Your task to perform on an android device: turn on wifi Image 0: 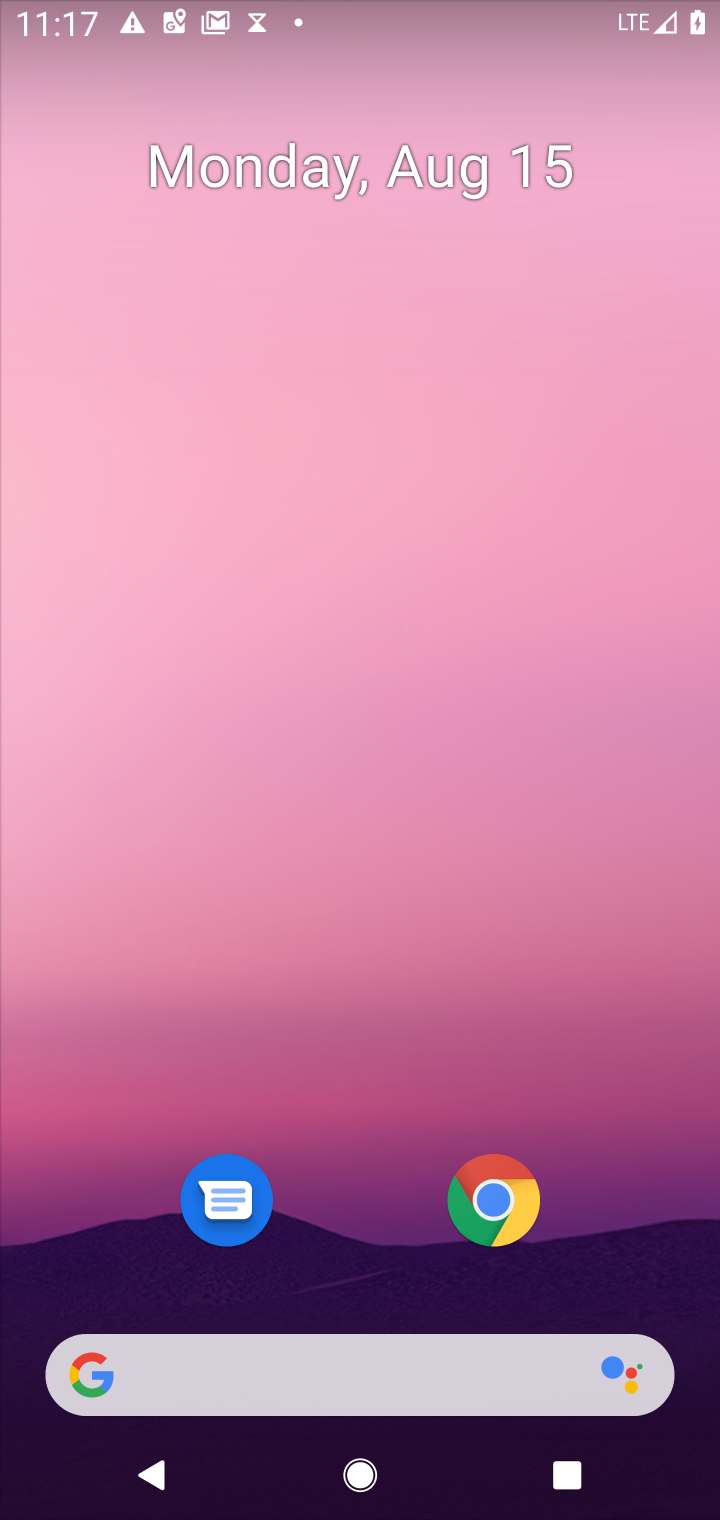
Step 0: drag from (383, 1107) to (389, 286)
Your task to perform on an android device: turn on wifi Image 1: 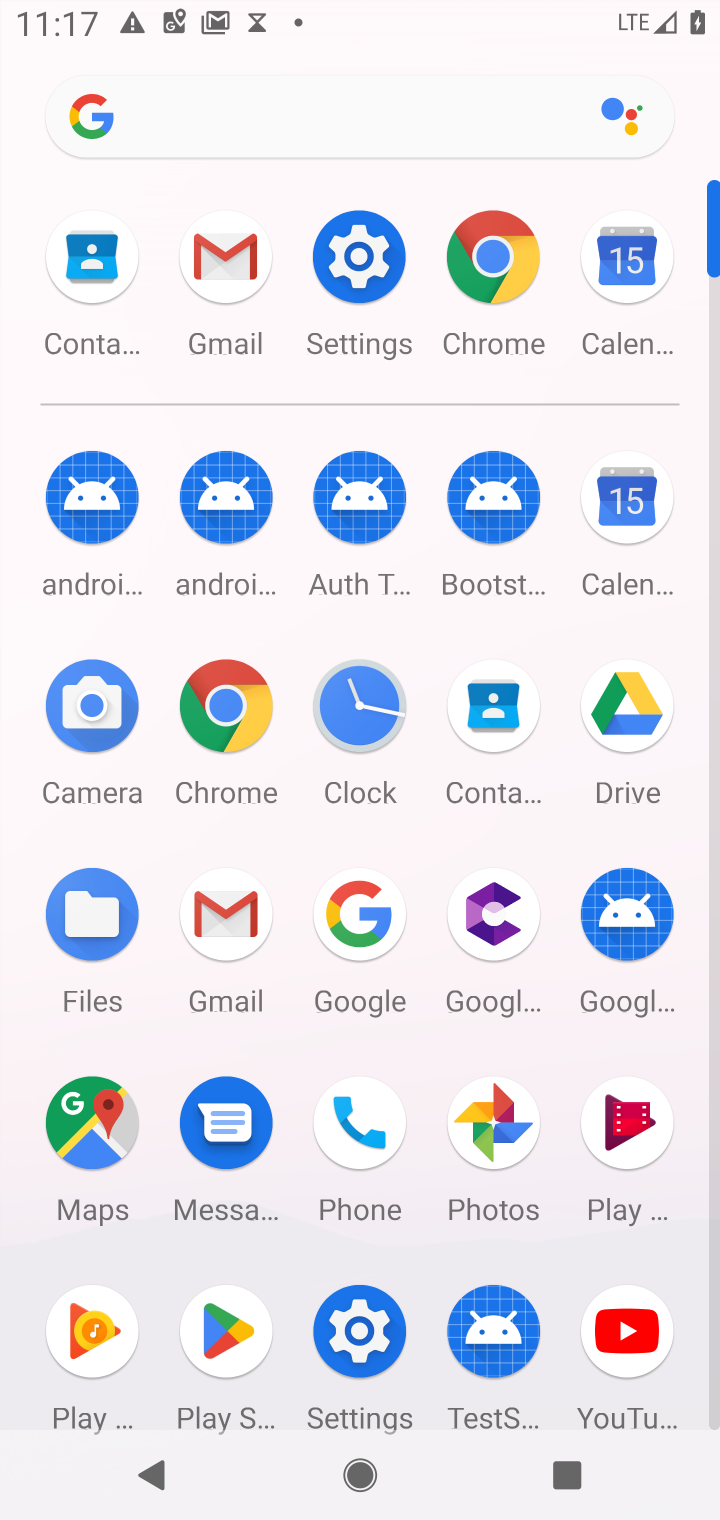
Step 1: click (346, 214)
Your task to perform on an android device: turn on wifi Image 2: 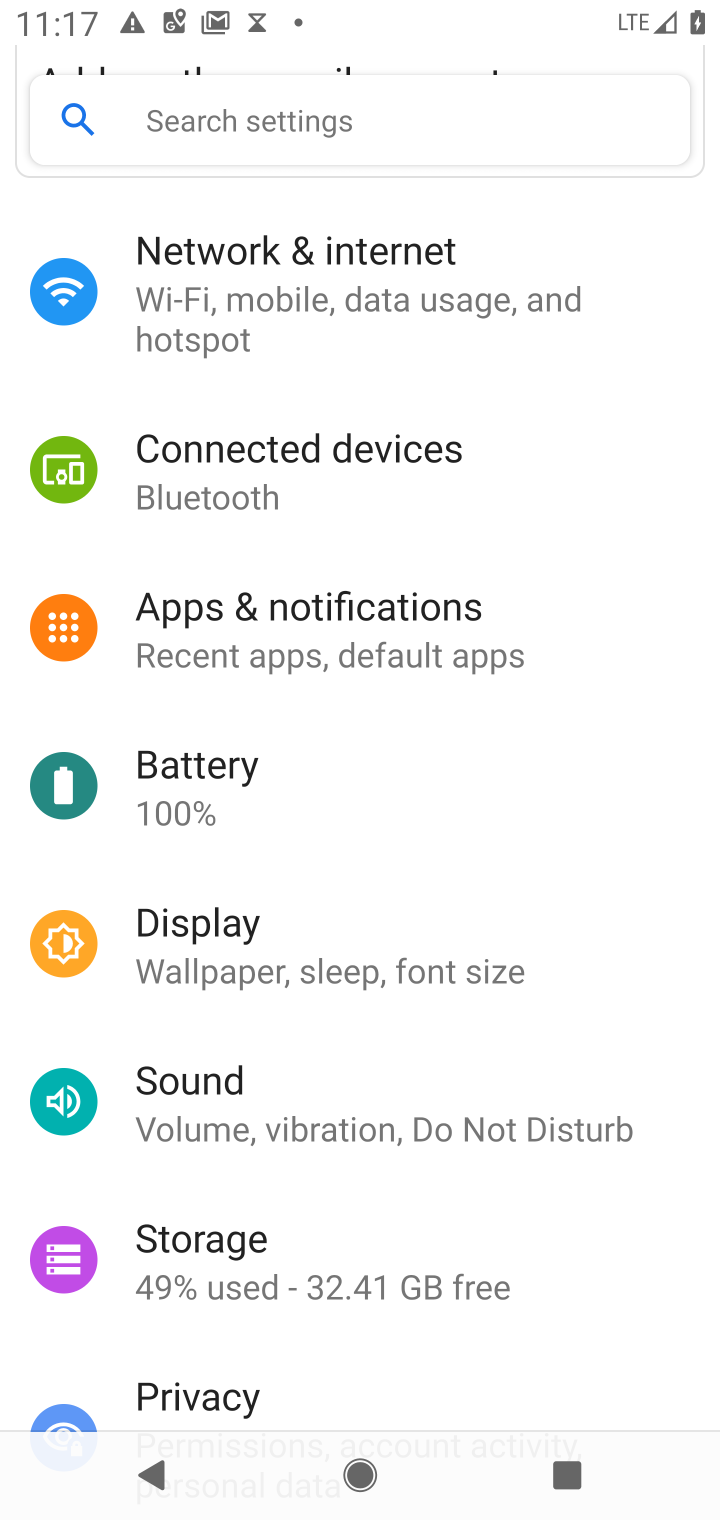
Step 2: click (391, 235)
Your task to perform on an android device: turn on wifi Image 3: 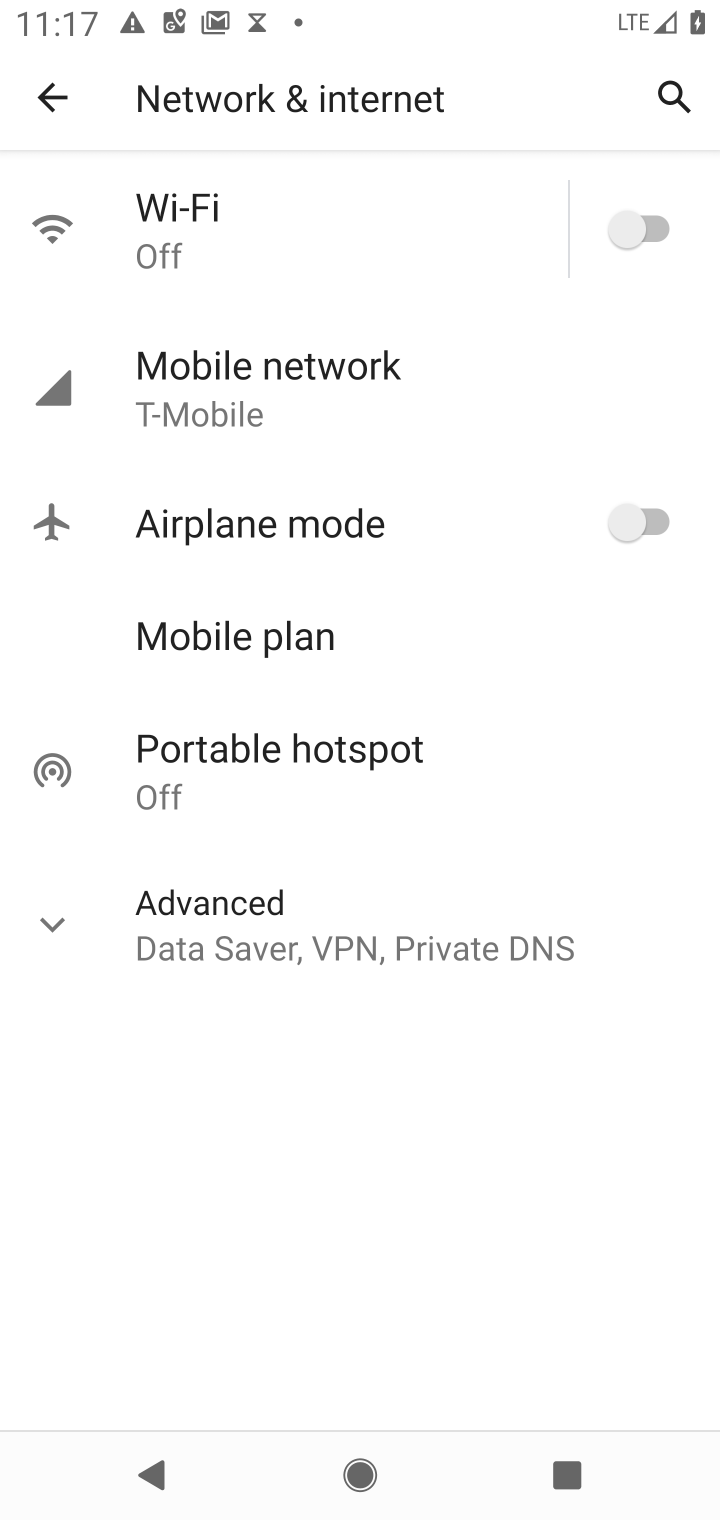
Step 3: click (662, 238)
Your task to perform on an android device: turn on wifi Image 4: 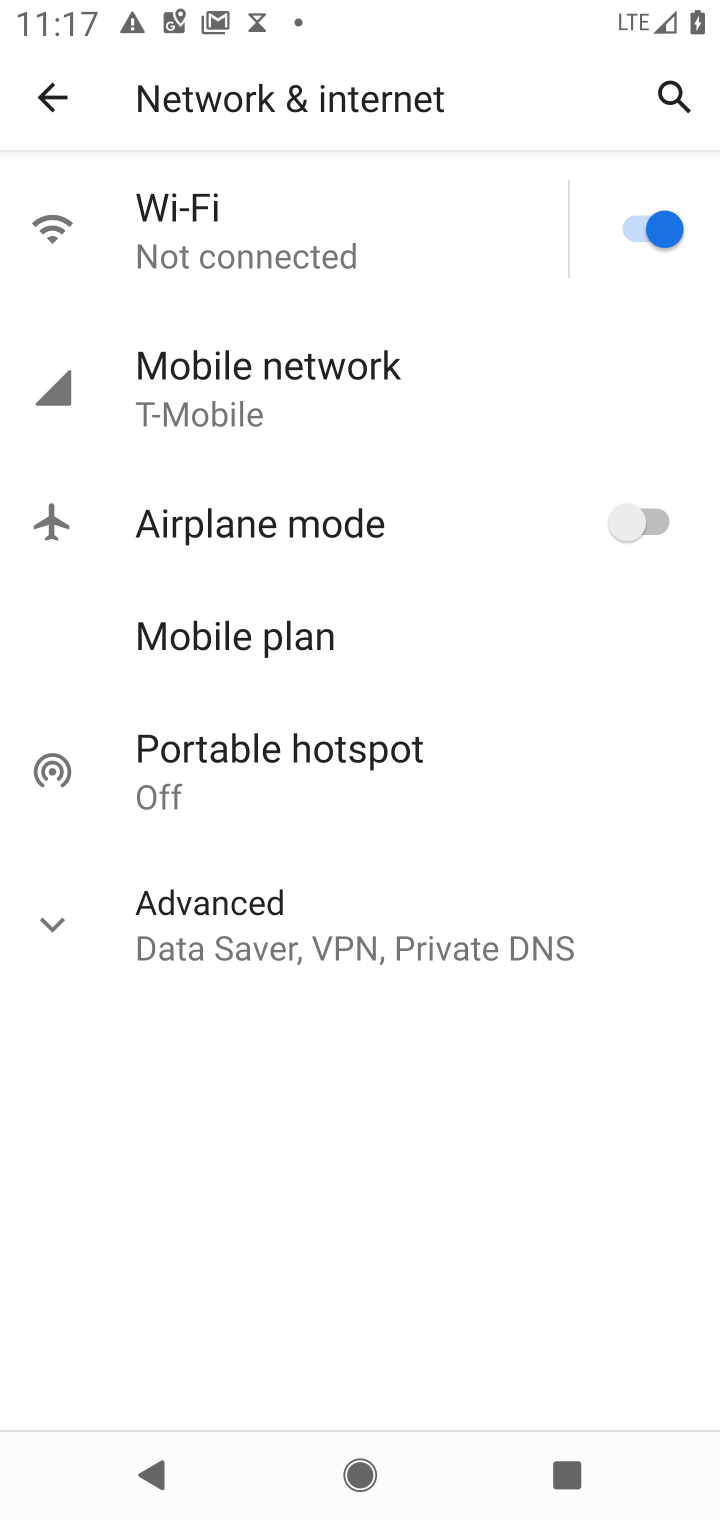
Step 4: task complete